Your task to perform on an android device: open app "Duolingo: language lessons" (install if not already installed) and go to login screen Image 0: 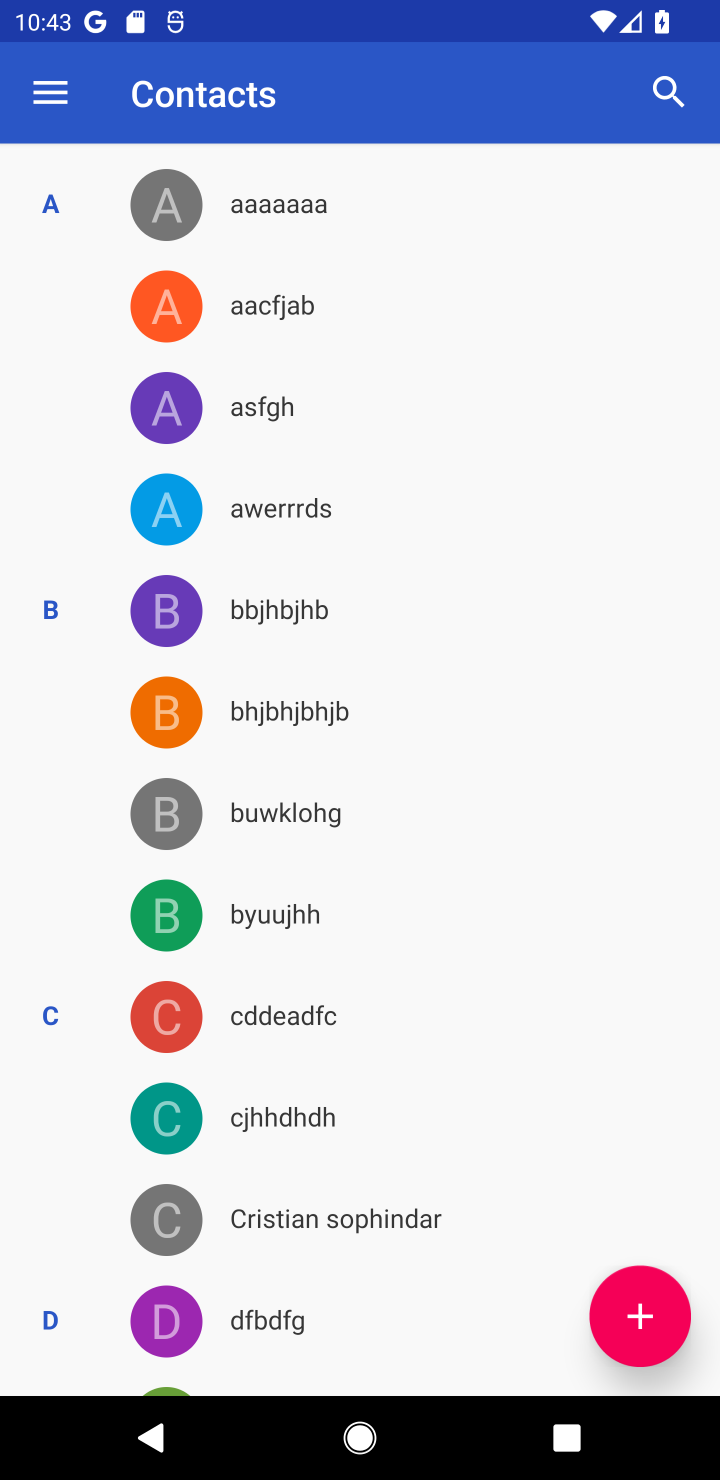
Step 0: press home button
Your task to perform on an android device: open app "Duolingo: language lessons" (install if not already installed) and go to login screen Image 1: 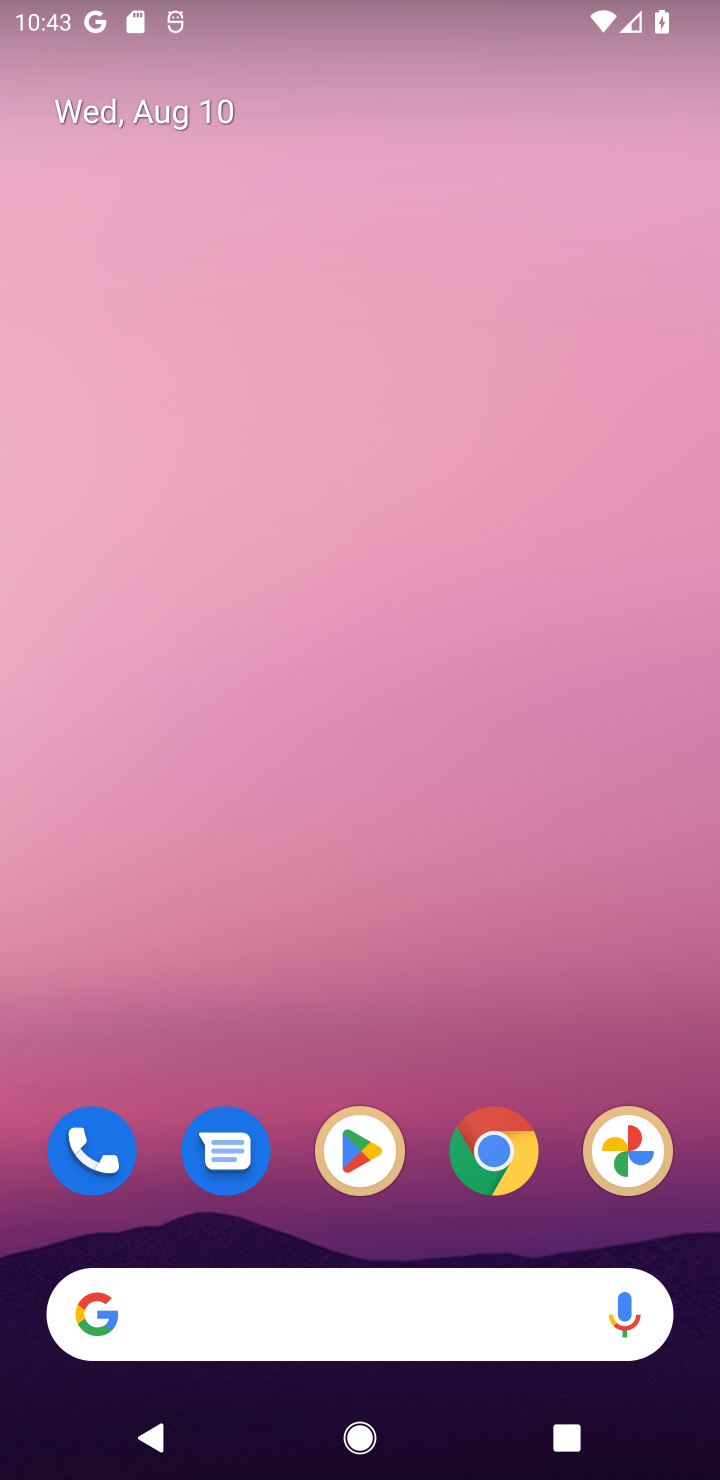
Step 1: click (365, 1146)
Your task to perform on an android device: open app "Duolingo: language lessons" (install if not already installed) and go to login screen Image 2: 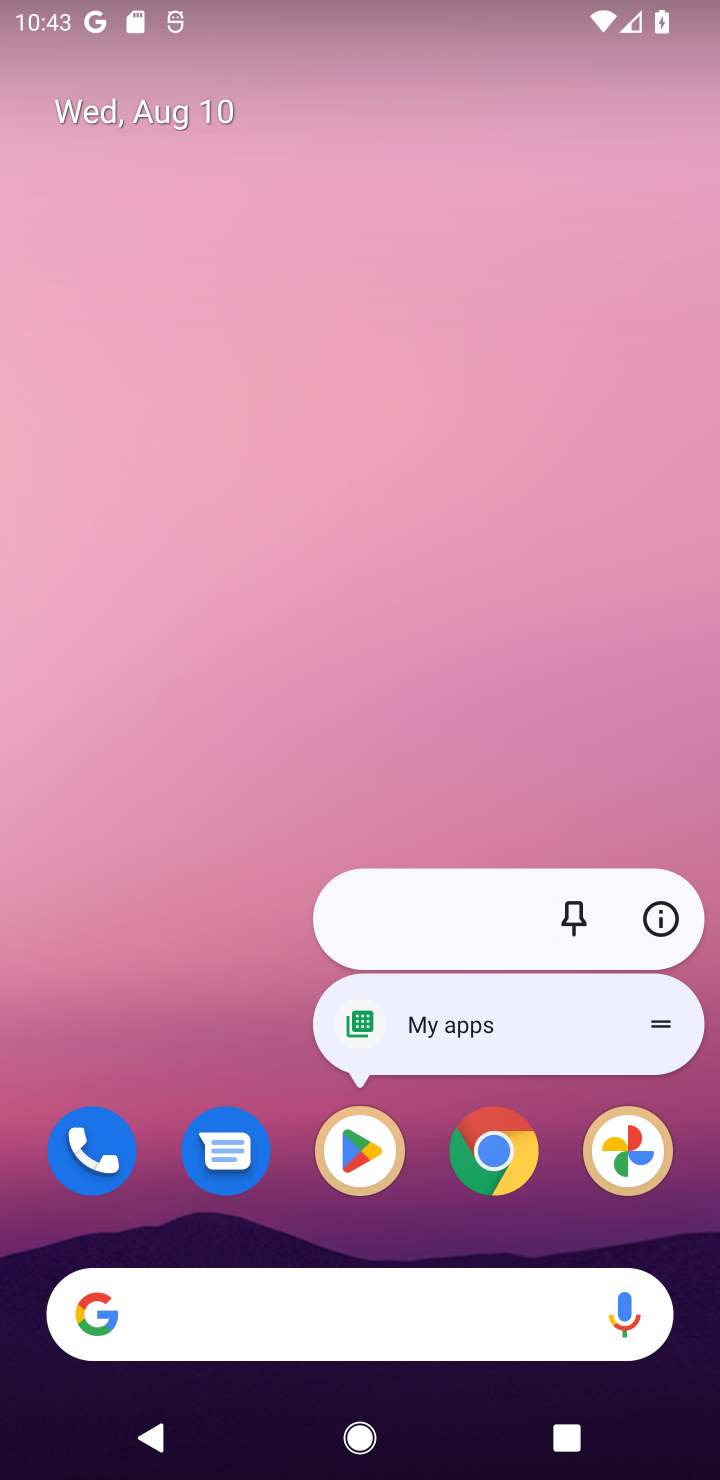
Step 2: click (363, 1162)
Your task to perform on an android device: open app "Duolingo: language lessons" (install if not already installed) and go to login screen Image 3: 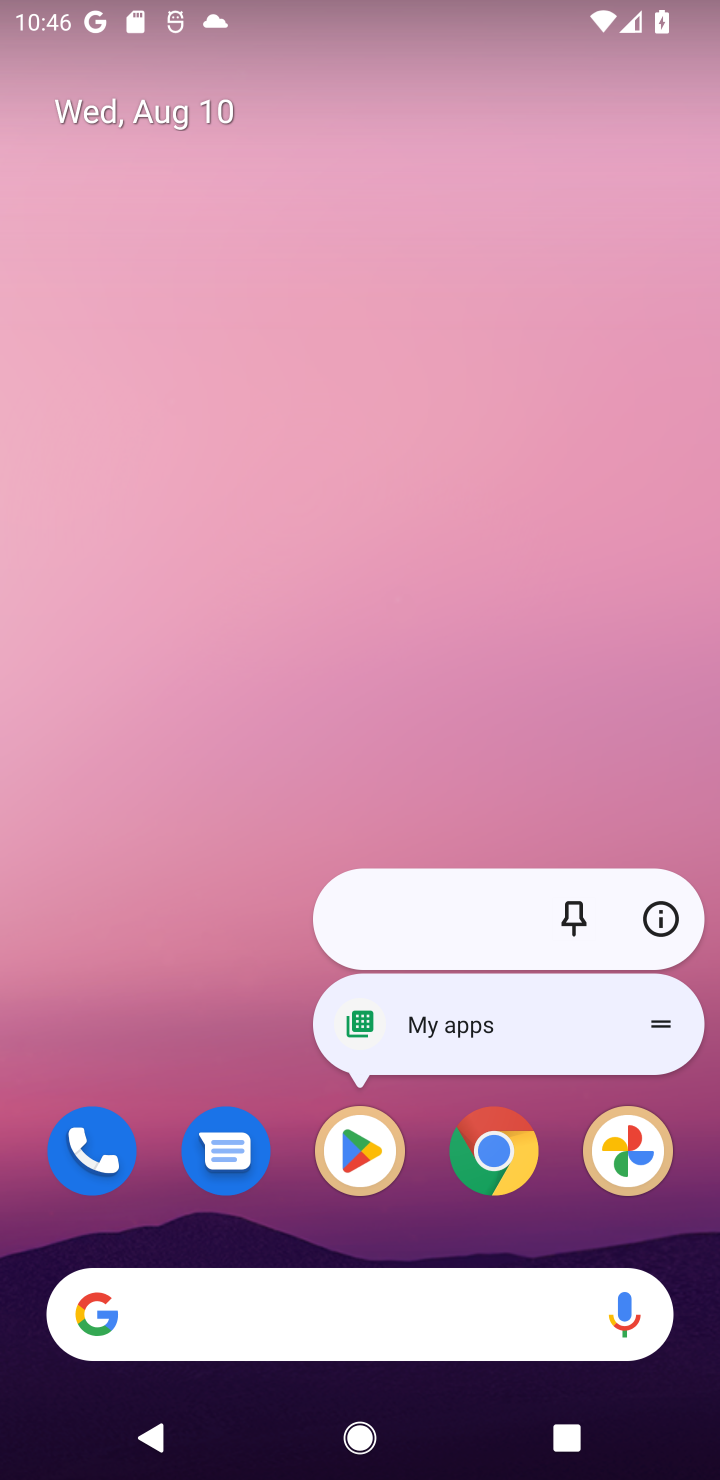
Step 3: click (370, 1143)
Your task to perform on an android device: open app "Duolingo: language lessons" (install if not already installed) and go to login screen Image 4: 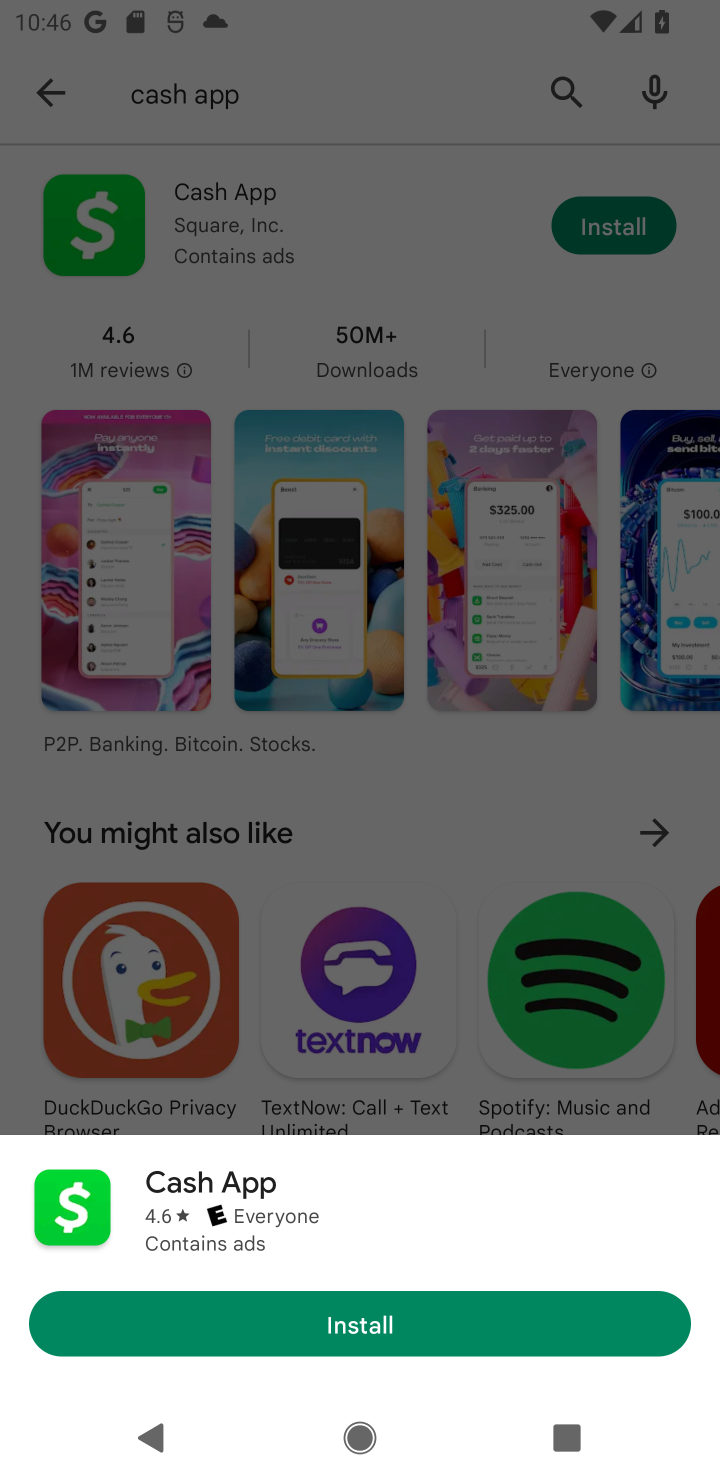
Step 4: click (346, 461)
Your task to perform on an android device: open app "Duolingo: language lessons" (install if not already installed) and go to login screen Image 5: 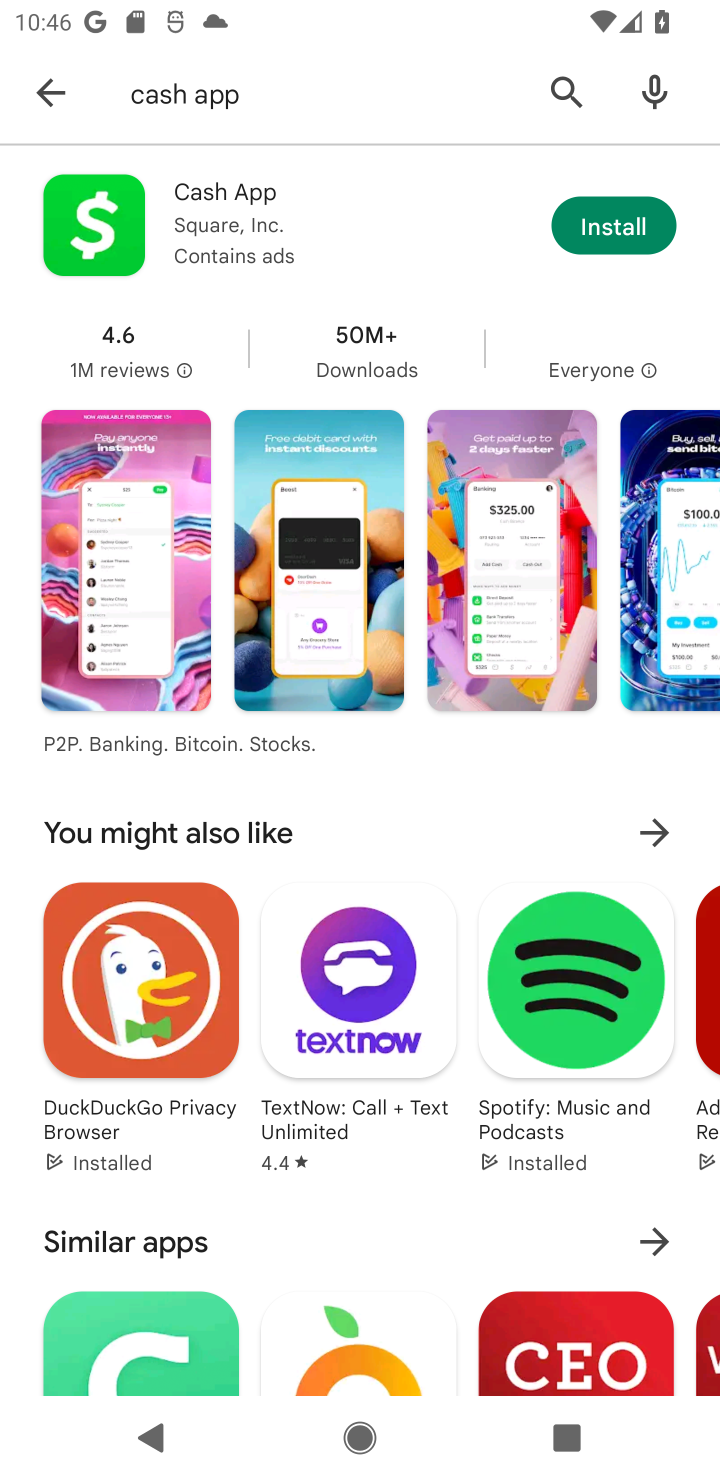
Step 5: click (571, 71)
Your task to perform on an android device: open app "Duolingo: language lessons" (install if not already installed) and go to login screen Image 6: 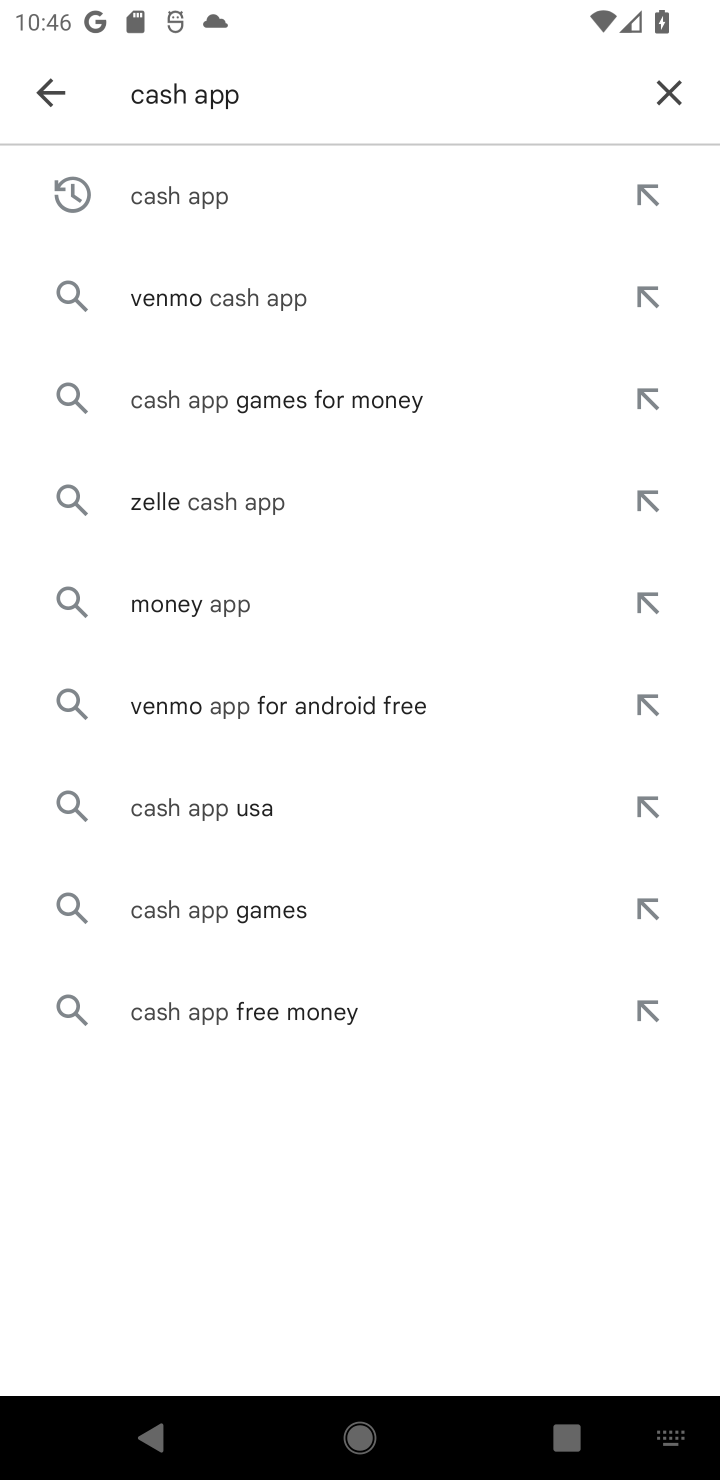
Step 6: click (664, 100)
Your task to perform on an android device: open app "Duolingo: language lessons" (install if not already installed) and go to login screen Image 7: 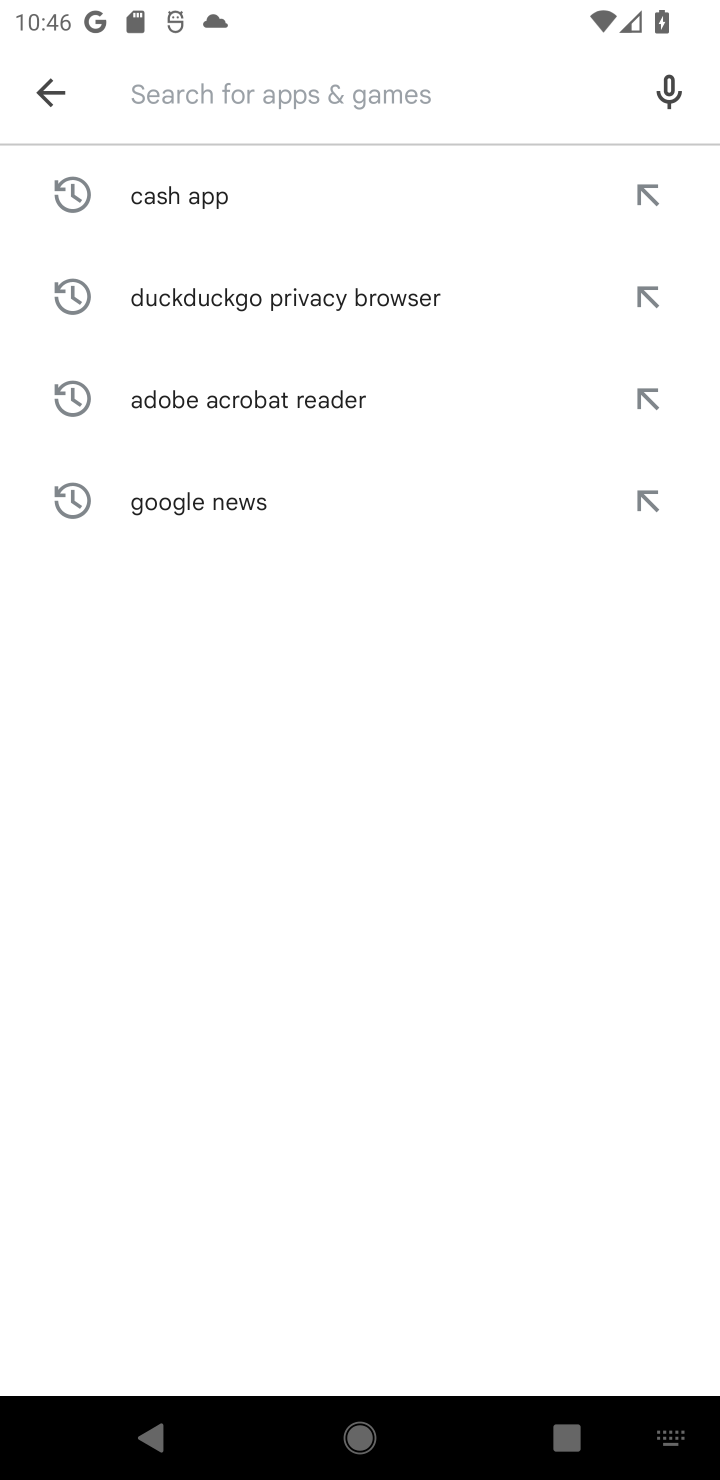
Step 7: click (228, 104)
Your task to perform on an android device: open app "Duolingo: language lessons" (install if not already installed) and go to login screen Image 8: 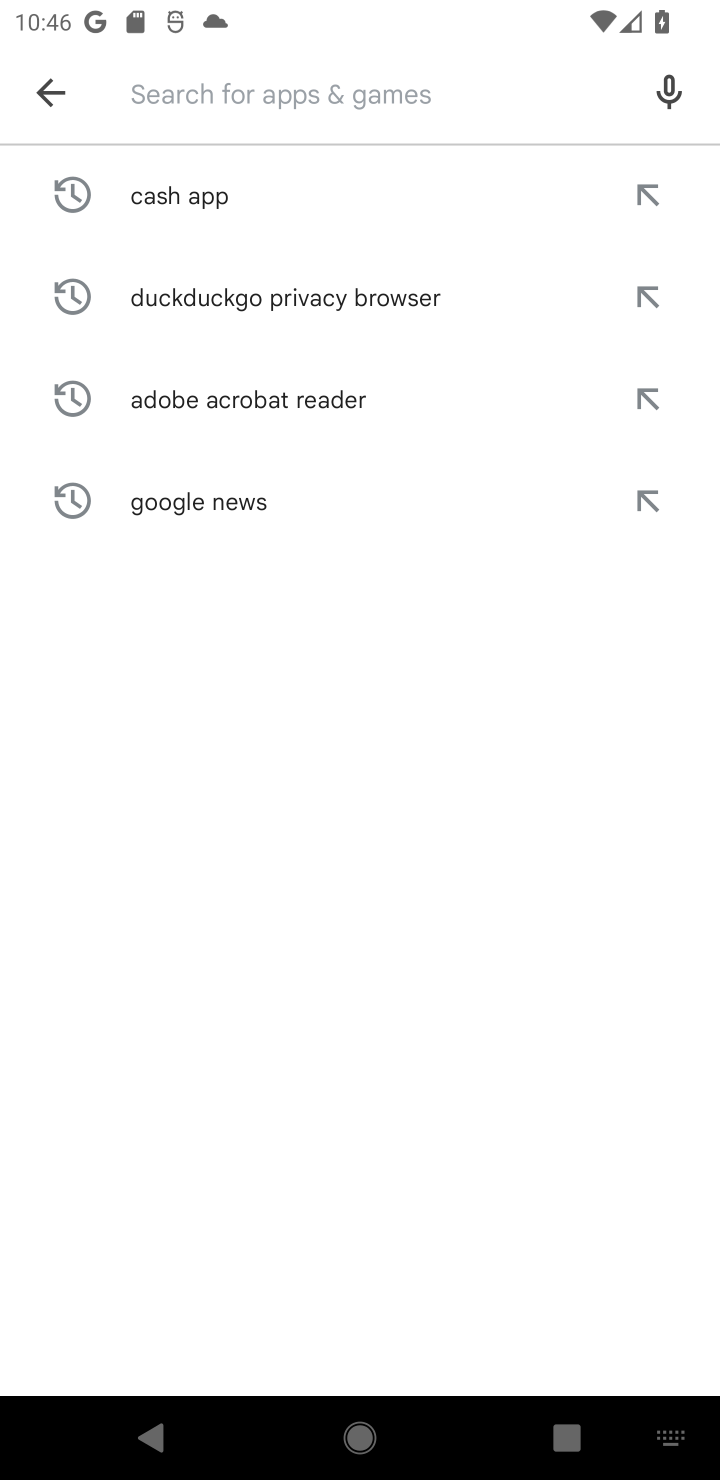
Step 8: type "duolingo"
Your task to perform on an android device: open app "Duolingo: language lessons" (install if not already installed) and go to login screen Image 9: 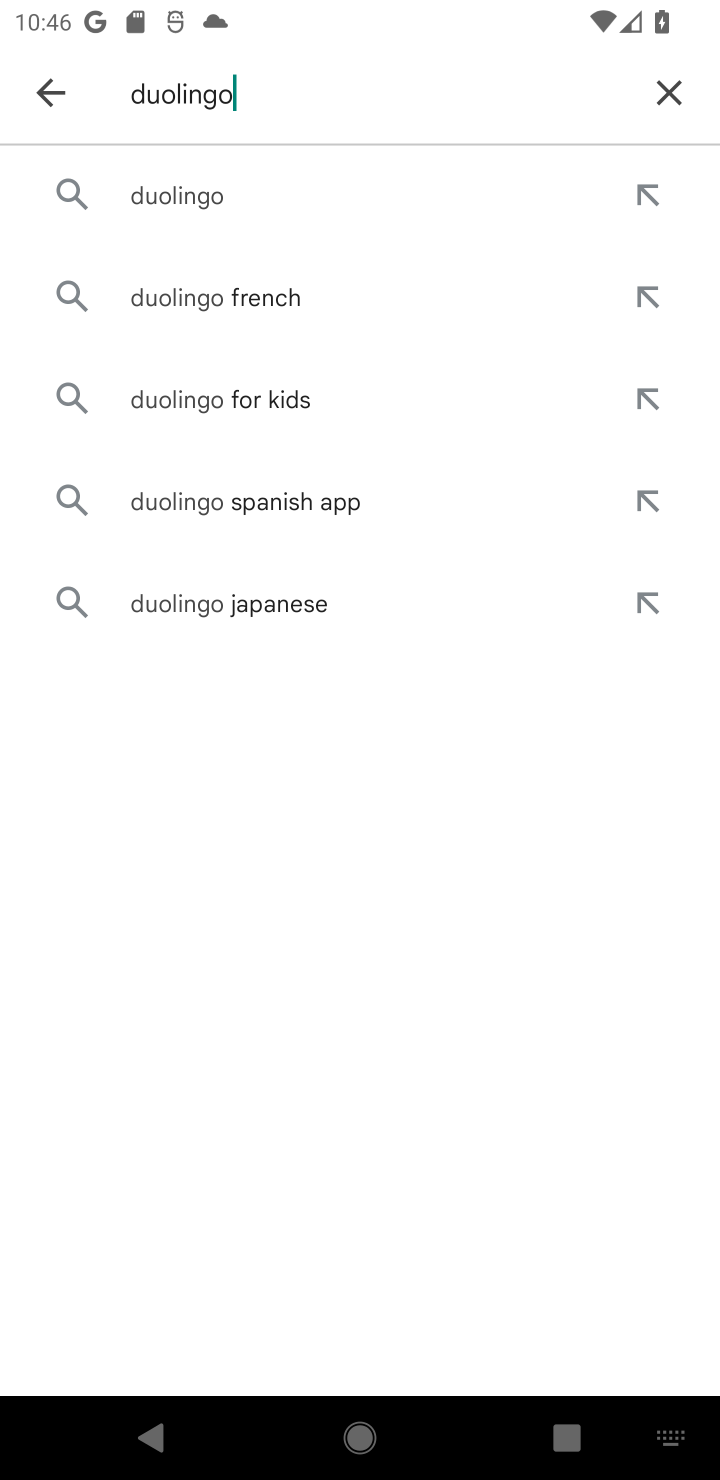
Step 9: click (188, 190)
Your task to perform on an android device: open app "Duolingo: language lessons" (install if not already installed) and go to login screen Image 10: 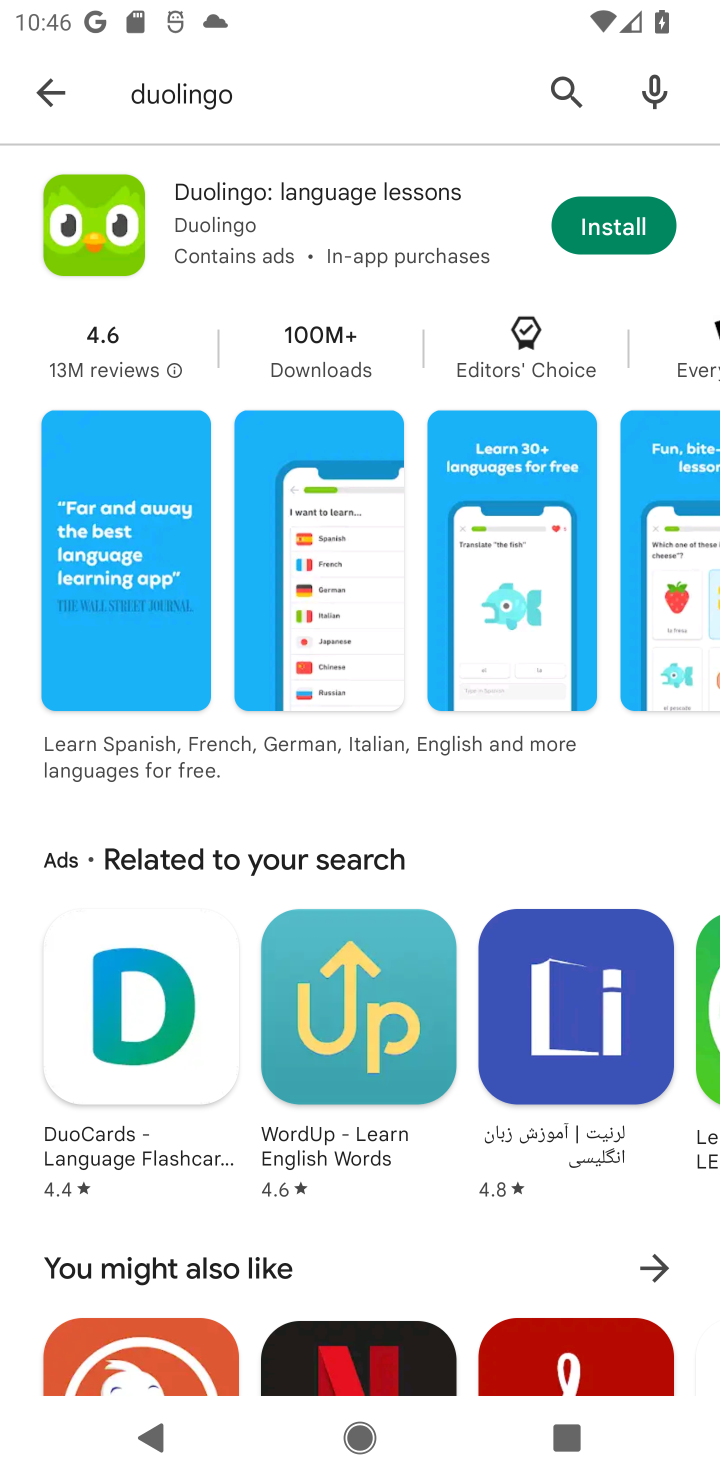
Step 10: click (633, 229)
Your task to perform on an android device: open app "Duolingo: language lessons" (install if not already installed) and go to login screen Image 11: 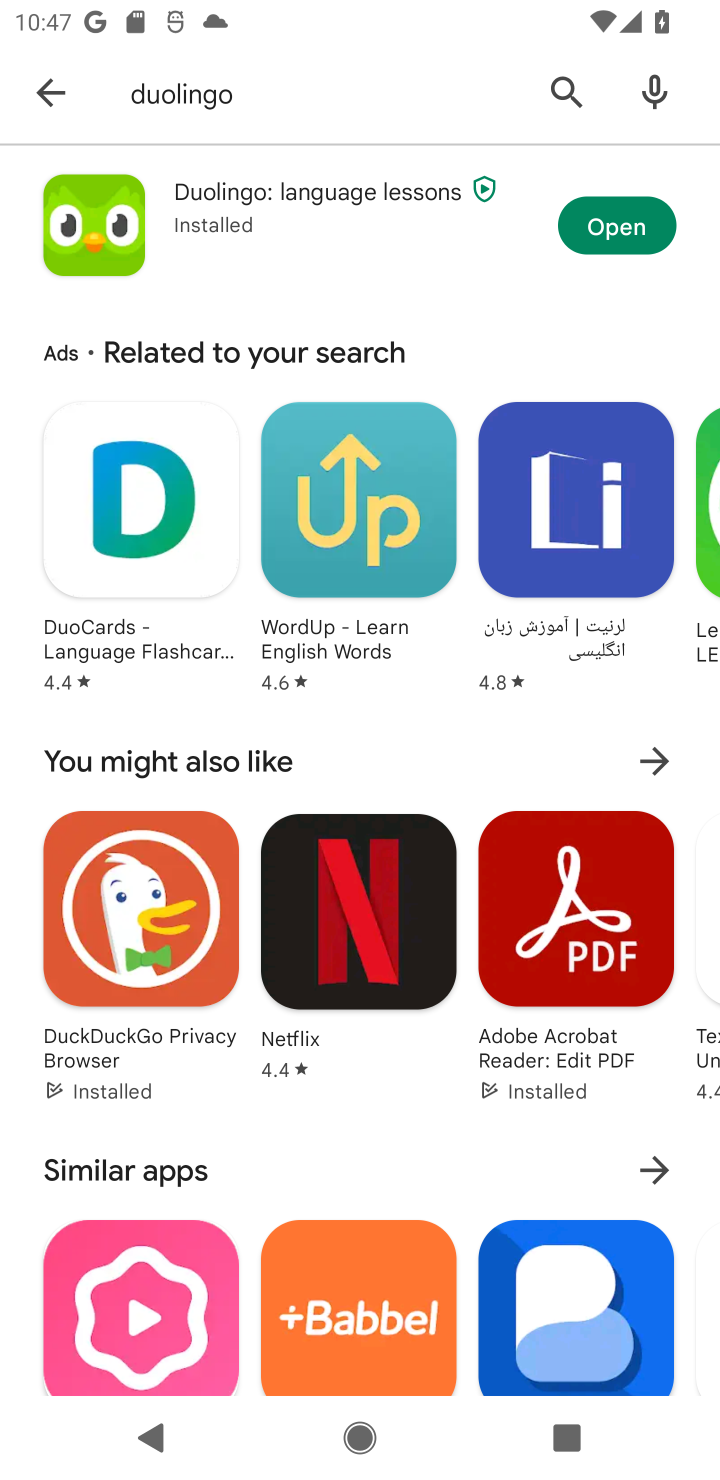
Step 11: click (628, 227)
Your task to perform on an android device: open app "Duolingo: language lessons" (install if not already installed) and go to login screen Image 12: 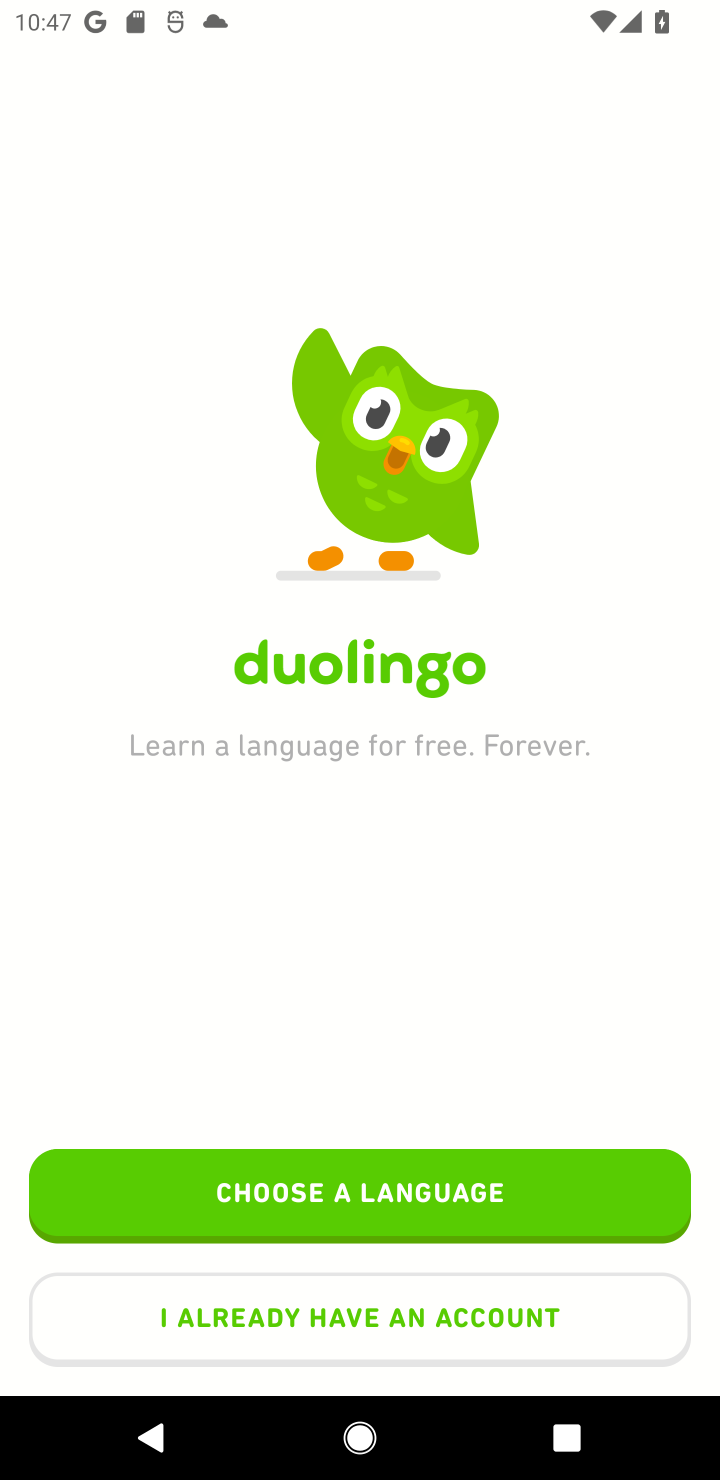
Step 12: click (431, 1331)
Your task to perform on an android device: open app "Duolingo: language lessons" (install if not already installed) and go to login screen Image 13: 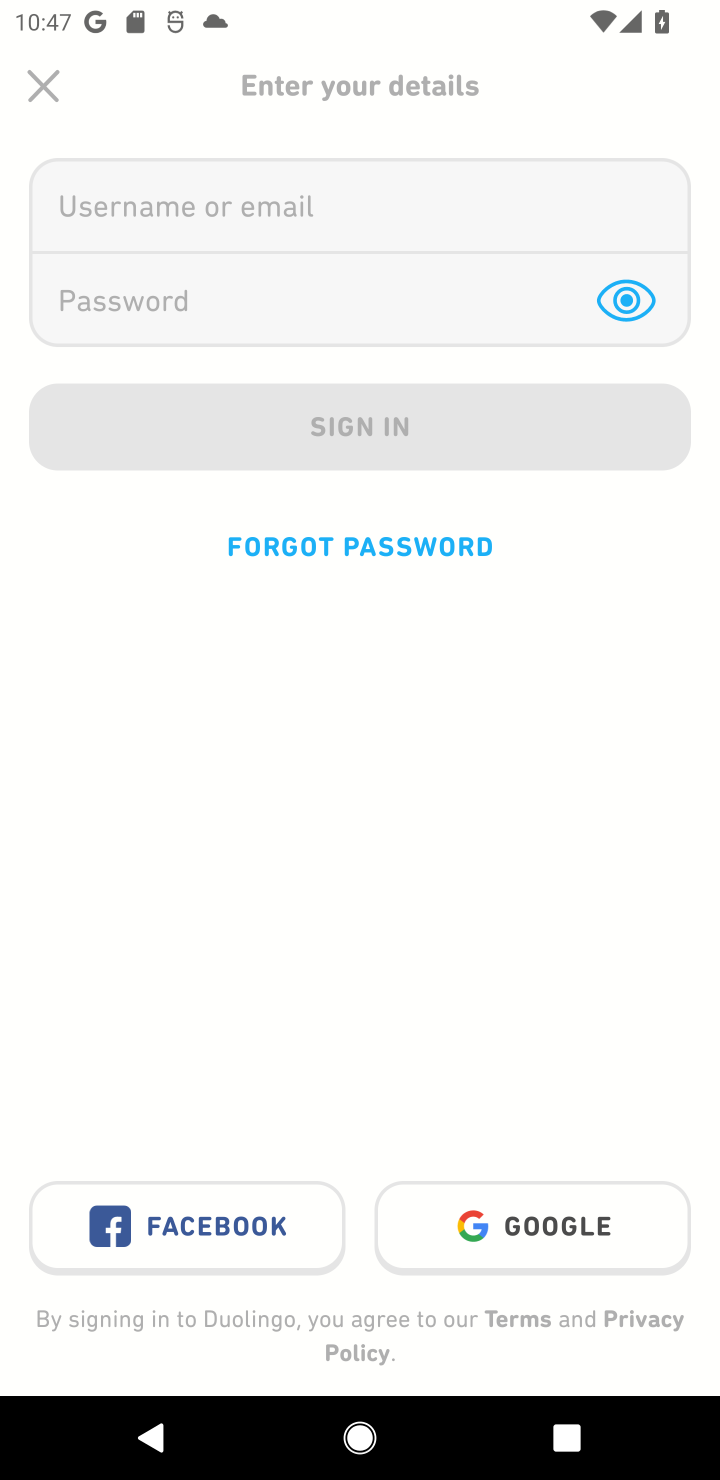
Step 13: task complete